Your task to perform on an android device: Check the news Image 0: 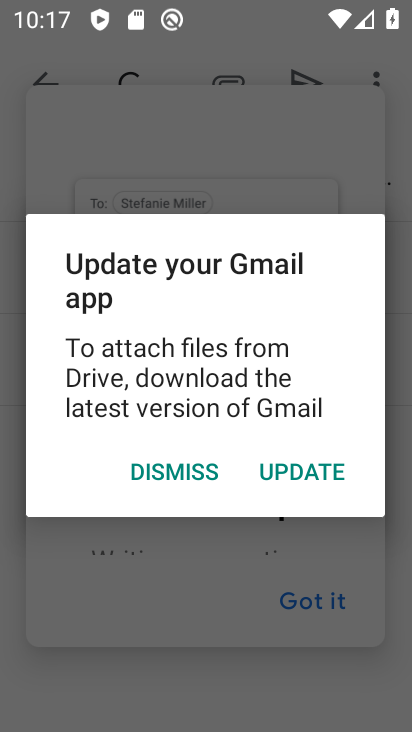
Step 0: press home button
Your task to perform on an android device: Check the news Image 1: 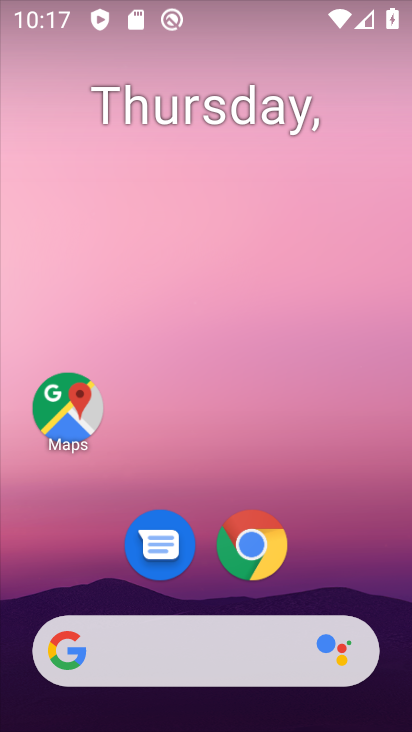
Step 1: drag from (333, 581) to (269, 95)
Your task to perform on an android device: Check the news Image 2: 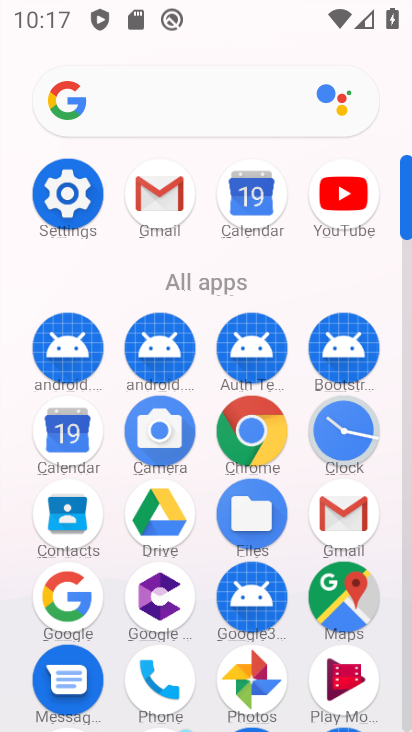
Step 2: click (60, 596)
Your task to perform on an android device: Check the news Image 3: 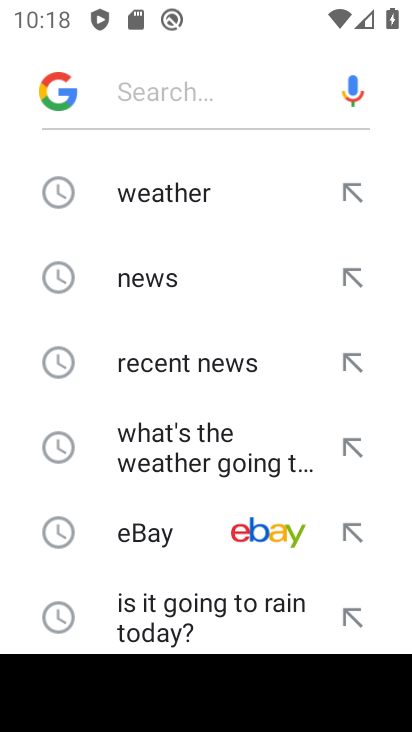
Step 3: type "news"
Your task to perform on an android device: Check the news Image 4: 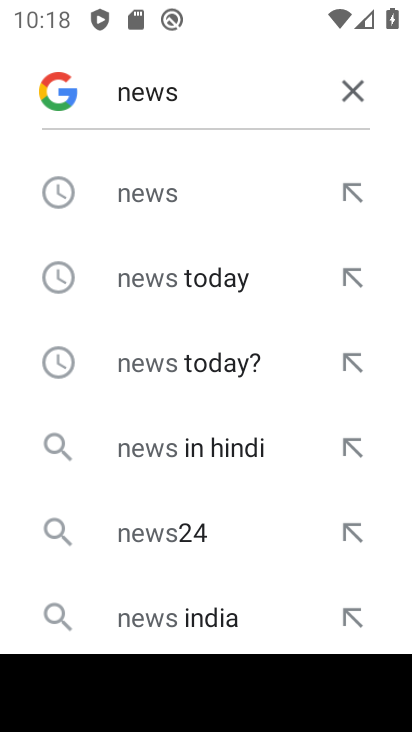
Step 4: click (148, 199)
Your task to perform on an android device: Check the news Image 5: 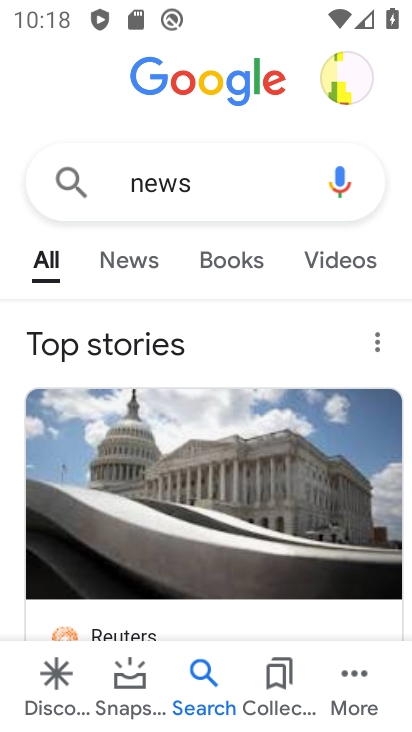
Step 5: drag from (180, 526) to (219, 372)
Your task to perform on an android device: Check the news Image 6: 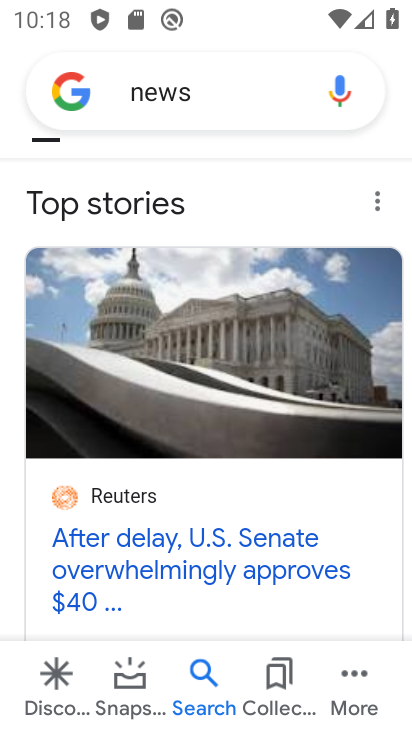
Step 6: drag from (148, 577) to (188, 440)
Your task to perform on an android device: Check the news Image 7: 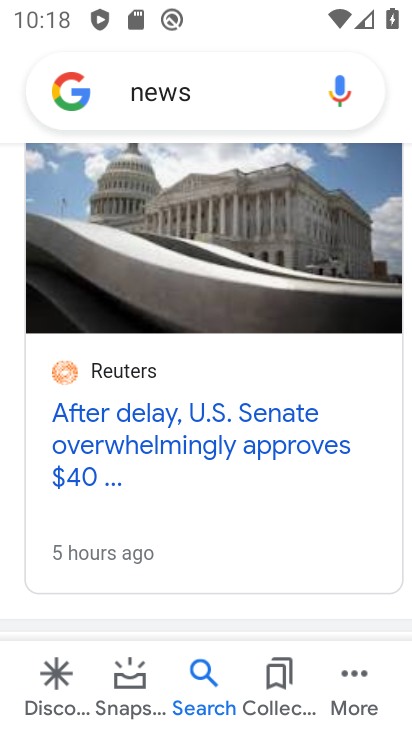
Step 7: click (188, 439)
Your task to perform on an android device: Check the news Image 8: 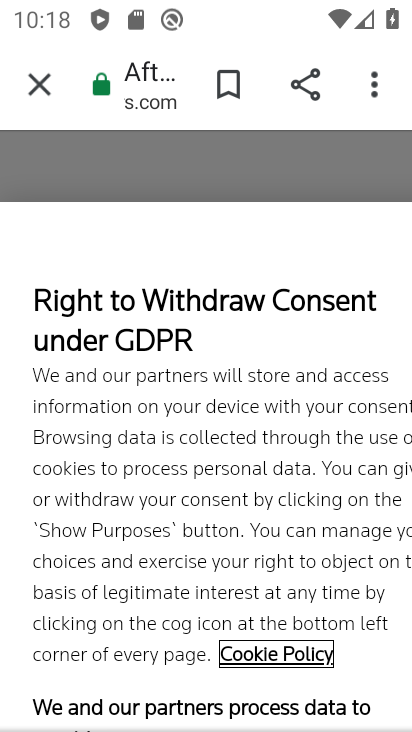
Step 8: task complete